Your task to perform on an android device: turn on data saver in the chrome app Image 0: 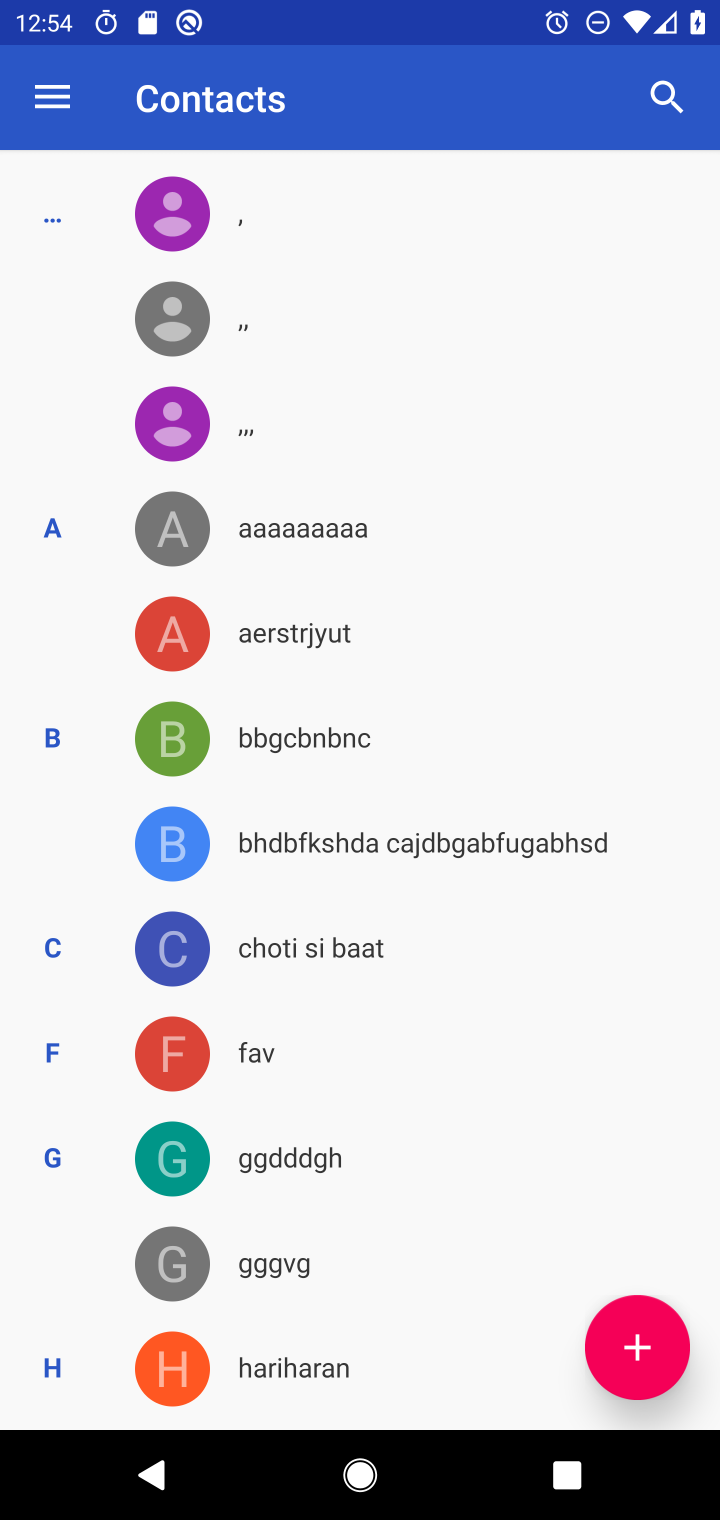
Step 0: press home button
Your task to perform on an android device: turn on data saver in the chrome app Image 1: 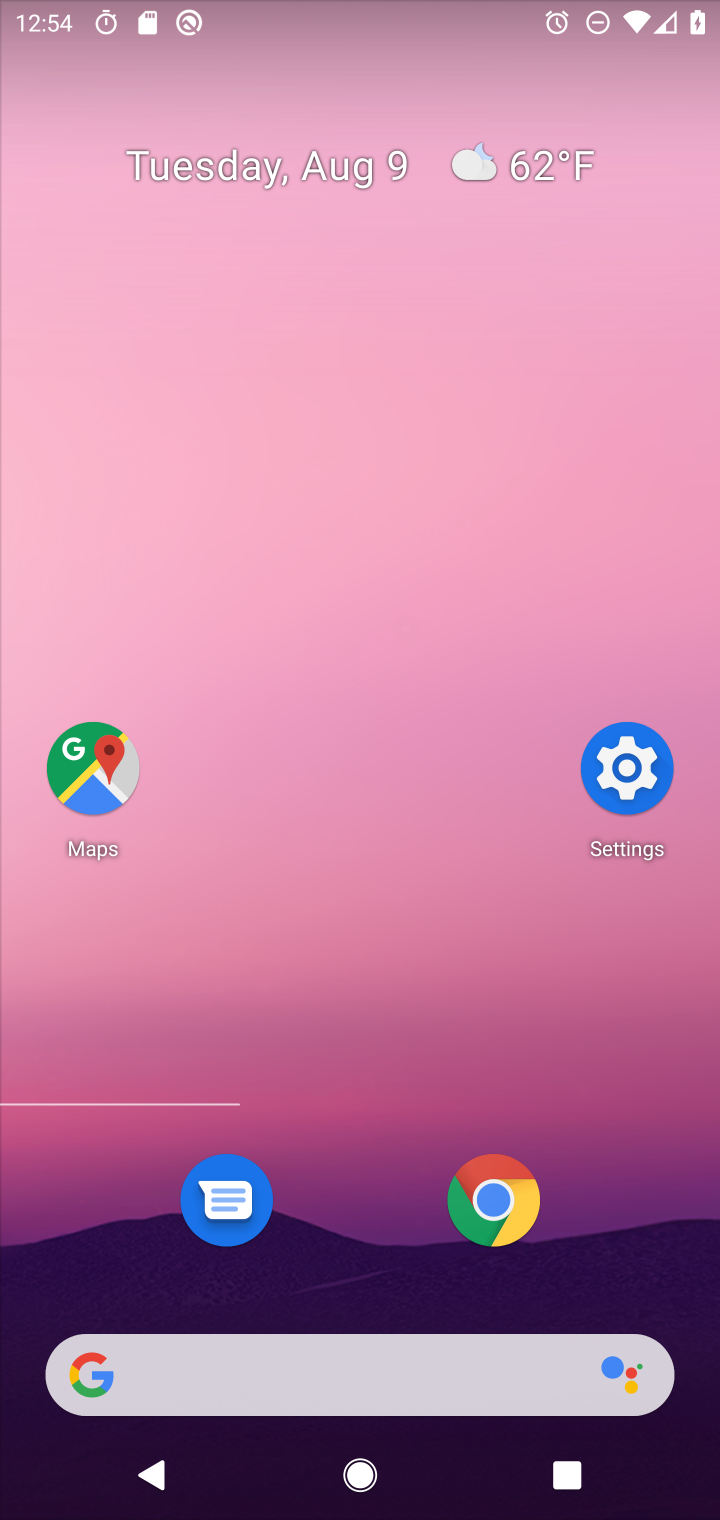
Step 1: click (497, 1201)
Your task to perform on an android device: turn on data saver in the chrome app Image 2: 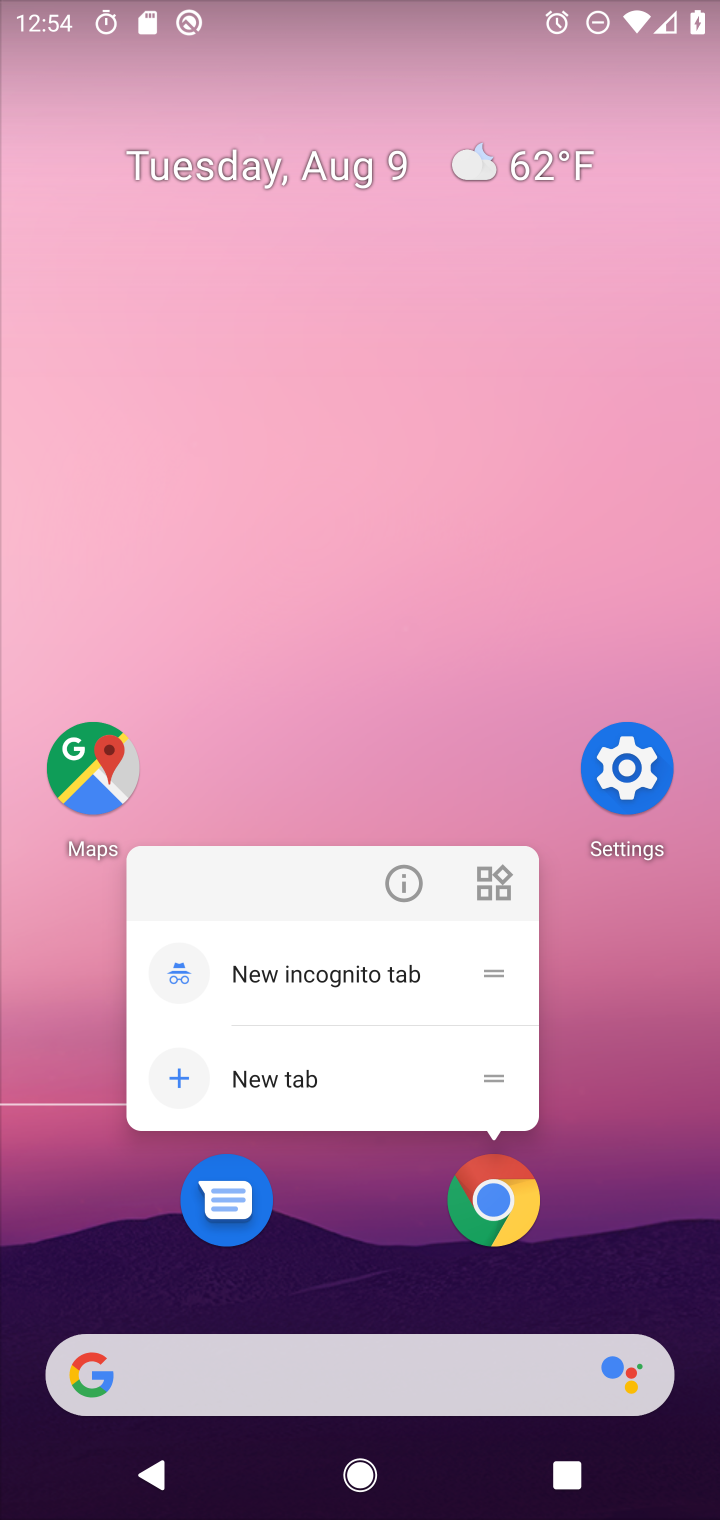
Step 2: click (497, 1206)
Your task to perform on an android device: turn on data saver in the chrome app Image 3: 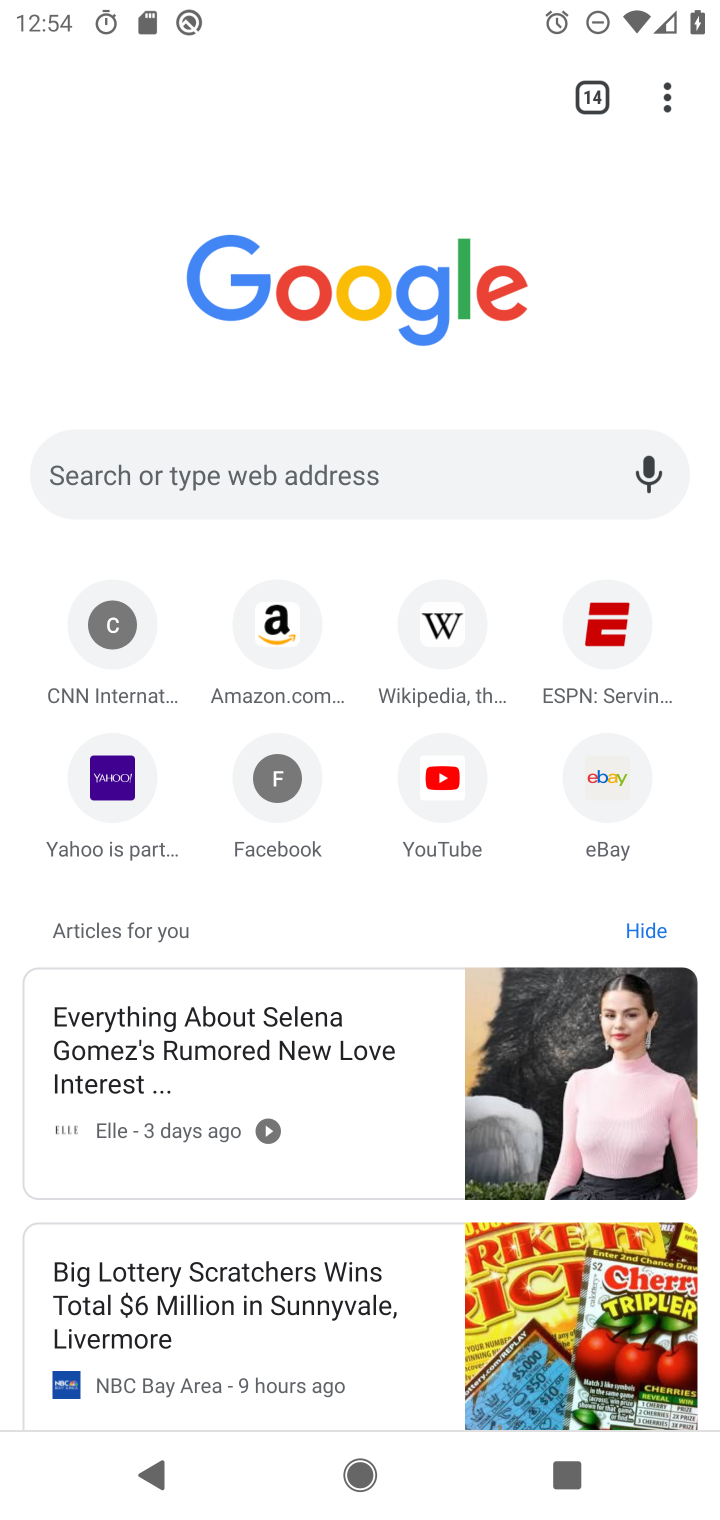
Step 3: drag from (662, 94) to (443, 925)
Your task to perform on an android device: turn on data saver in the chrome app Image 4: 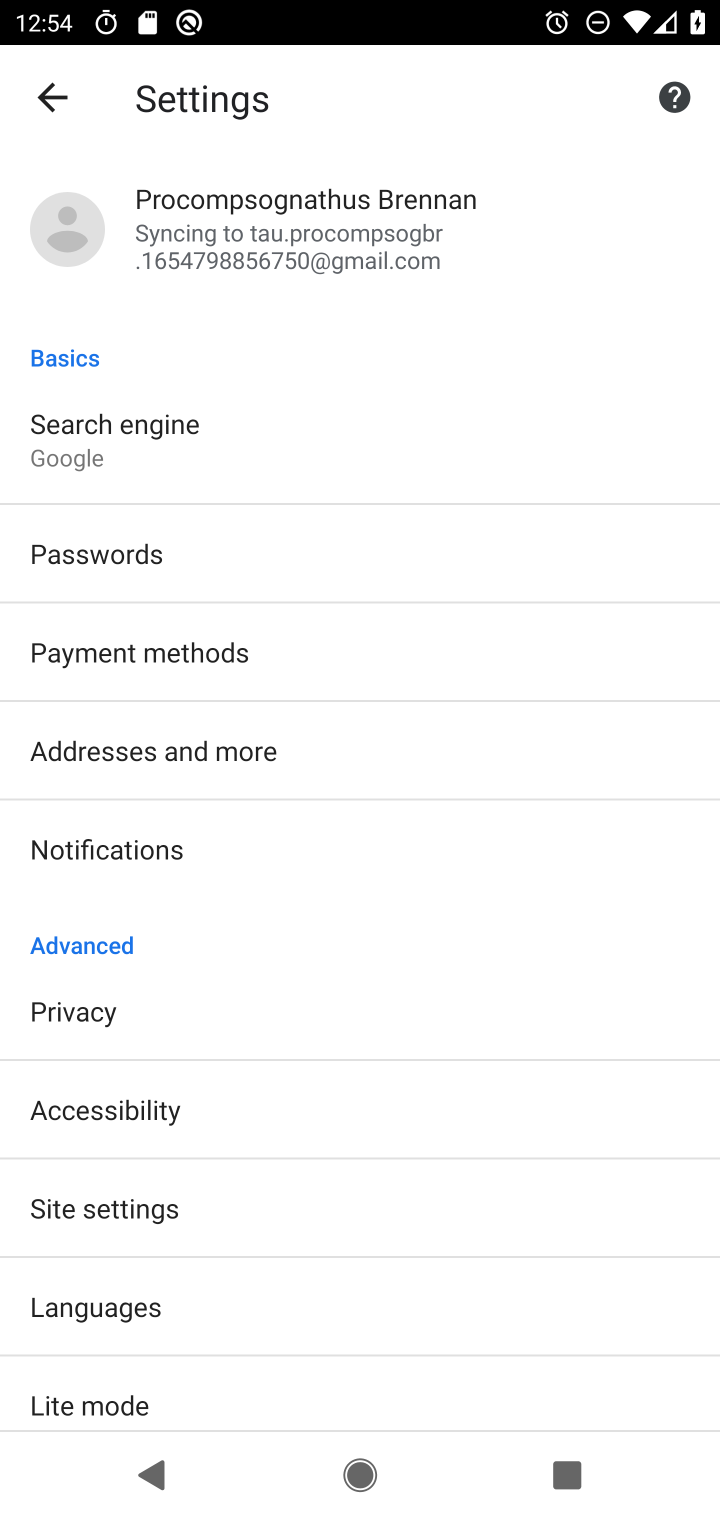
Step 4: click (130, 1392)
Your task to perform on an android device: turn on data saver in the chrome app Image 5: 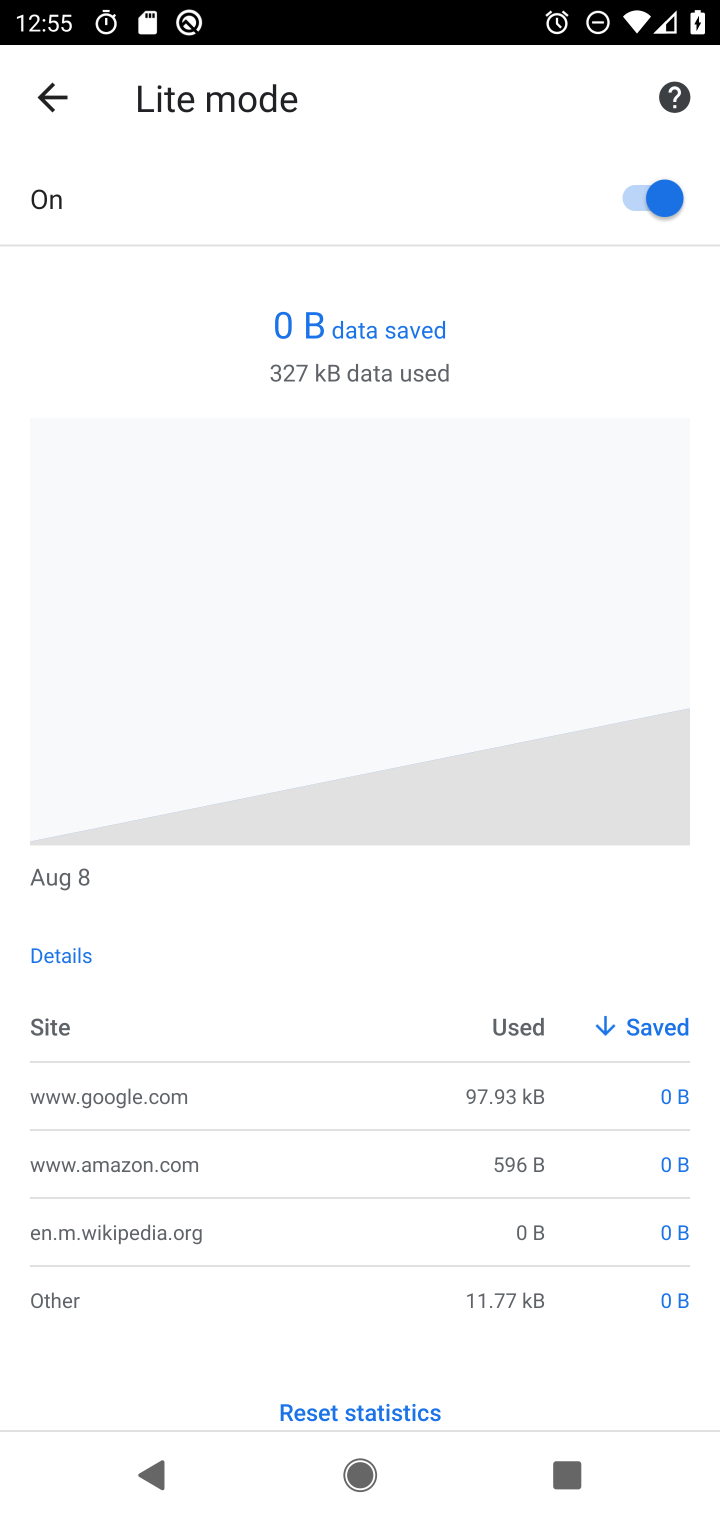
Step 5: task complete